Your task to perform on an android device: Play the last video I watched on Youtube Image 0: 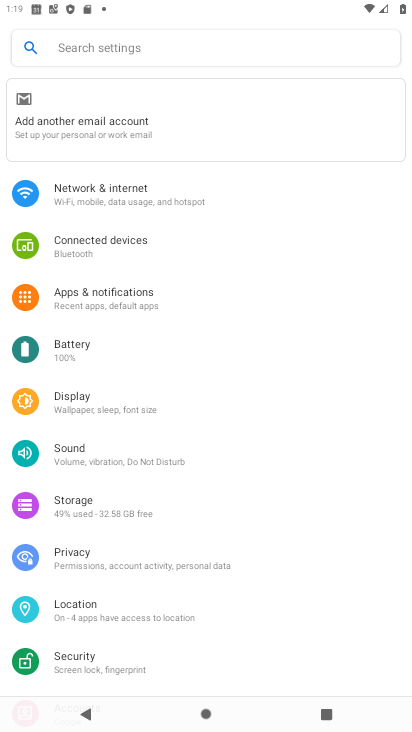
Step 0: press home button
Your task to perform on an android device: Play the last video I watched on Youtube Image 1: 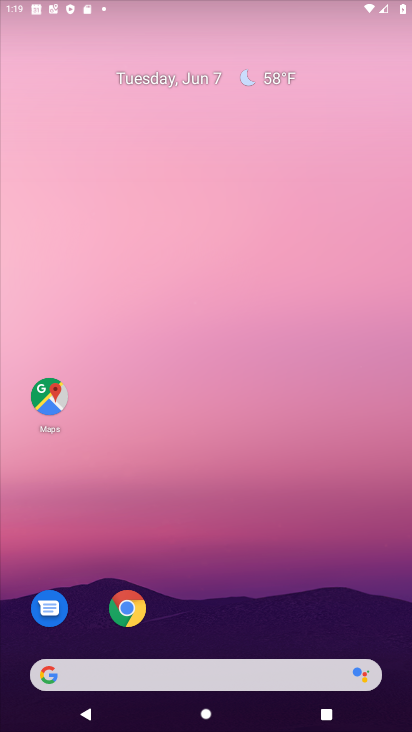
Step 1: drag from (225, 599) to (122, 54)
Your task to perform on an android device: Play the last video I watched on Youtube Image 2: 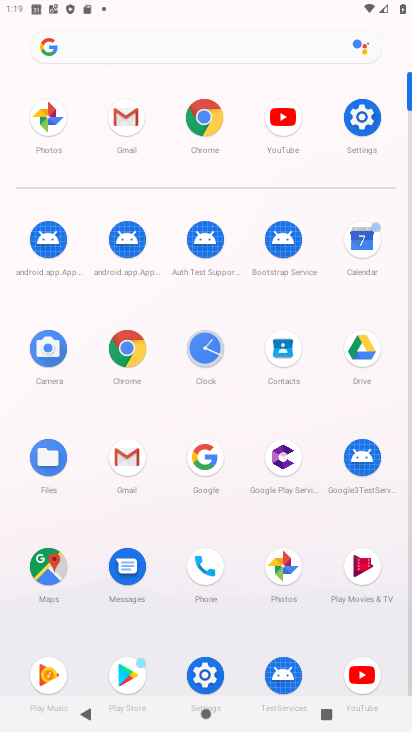
Step 2: click (279, 112)
Your task to perform on an android device: Play the last video I watched on Youtube Image 3: 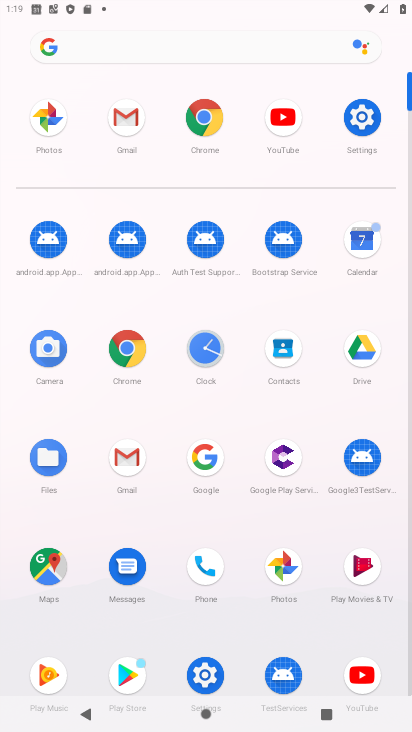
Step 3: click (368, 673)
Your task to perform on an android device: Play the last video I watched on Youtube Image 4: 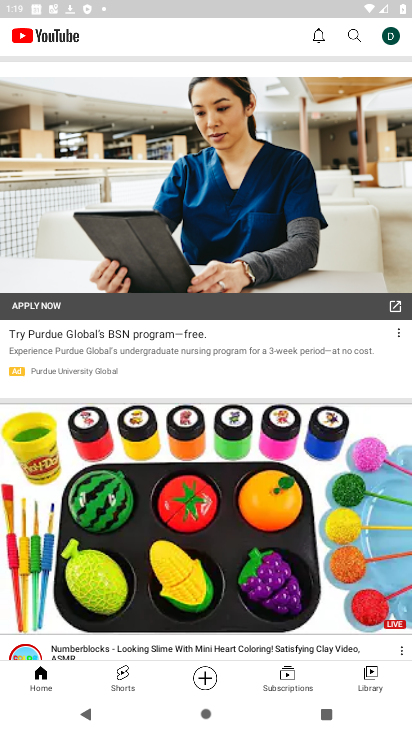
Step 4: click (381, 682)
Your task to perform on an android device: Play the last video I watched on Youtube Image 5: 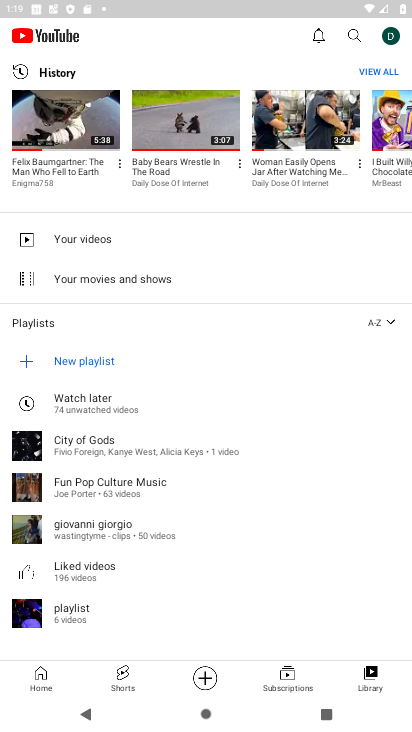
Step 5: click (68, 126)
Your task to perform on an android device: Play the last video I watched on Youtube Image 6: 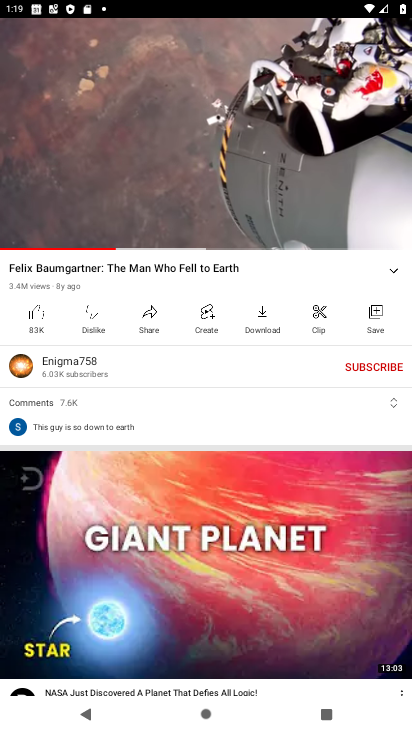
Step 6: task complete